Your task to perform on an android device: check out phone information Image 0: 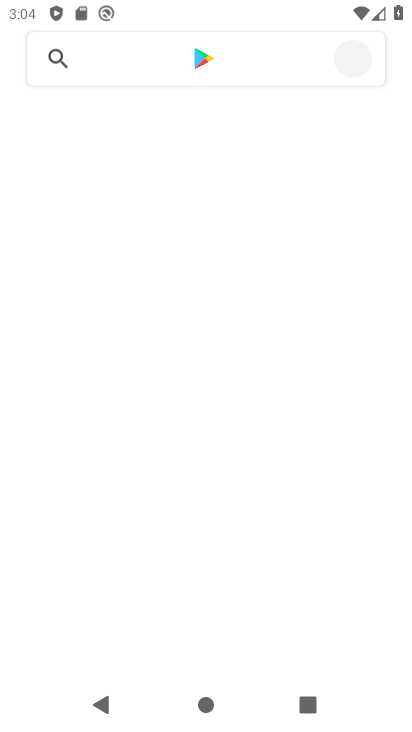
Step 0: drag from (266, 622) to (381, 279)
Your task to perform on an android device: check out phone information Image 1: 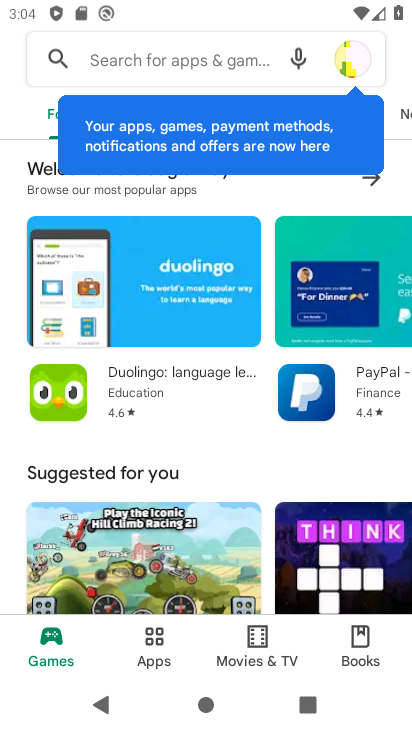
Step 1: press home button
Your task to perform on an android device: check out phone information Image 2: 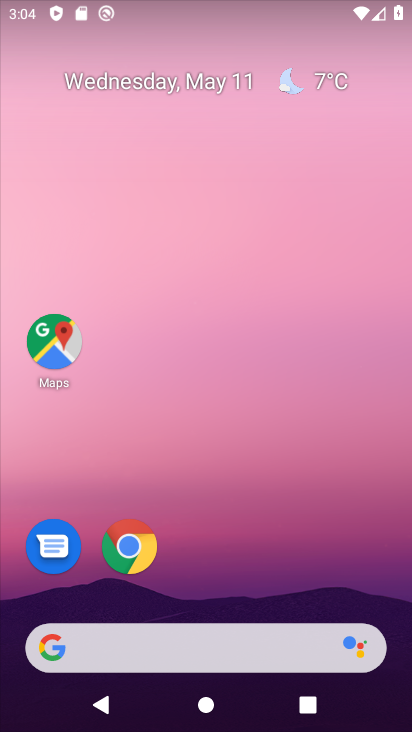
Step 2: drag from (239, 645) to (301, 70)
Your task to perform on an android device: check out phone information Image 3: 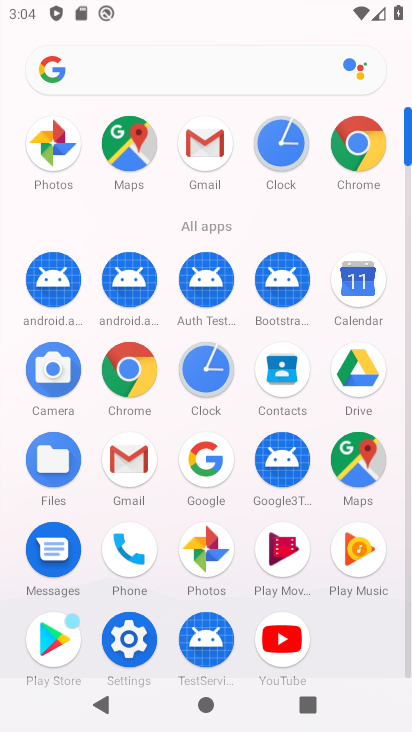
Step 3: click (127, 617)
Your task to perform on an android device: check out phone information Image 4: 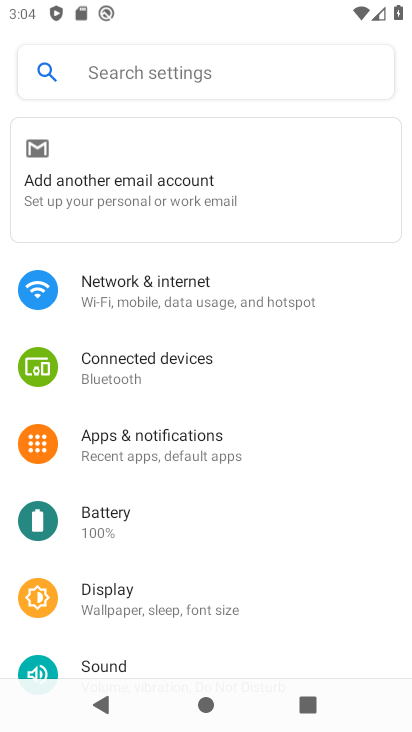
Step 4: drag from (87, 649) to (256, 10)
Your task to perform on an android device: check out phone information Image 5: 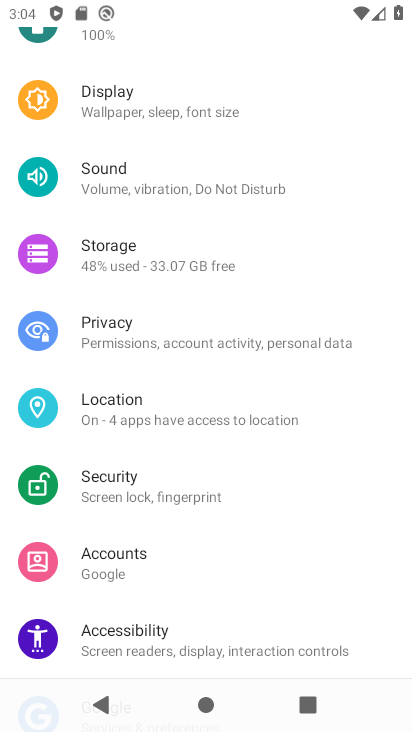
Step 5: drag from (173, 656) to (259, 59)
Your task to perform on an android device: check out phone information Image 6: 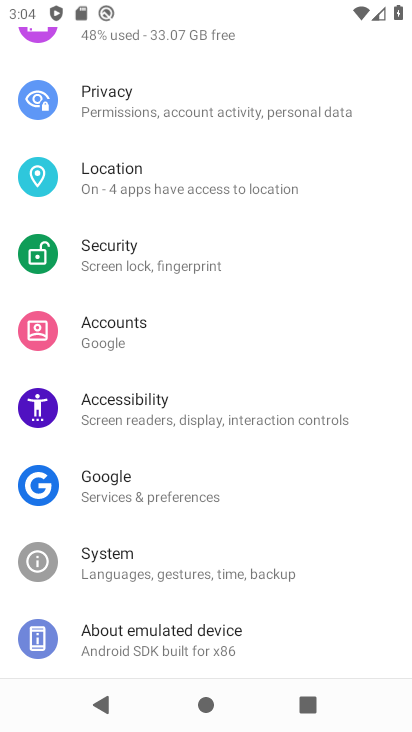
Step 6: click (171, 636)
Your task to perform on an android device: check out phone information Image 7: 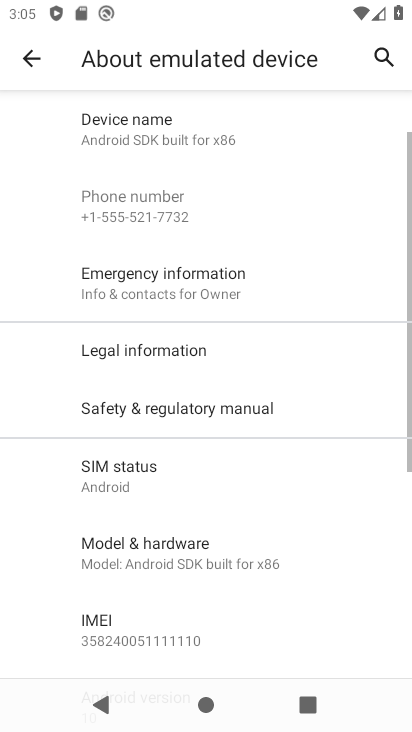
Step 7: task complete